Your task to perform on an android device: Show the shopping cart on bestbuy.com. Add bose soundsport free to the cart on bestbuy.com Image 0: 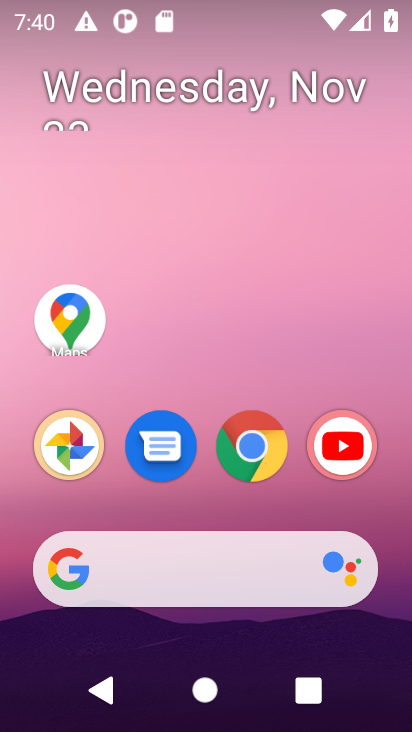
Step 0: click (241, 573)
Your task to perform on an android device: Show the shopping cart on bestbuy.com. Add bose soundsport free to the cart on bestbuy.com Image 1: 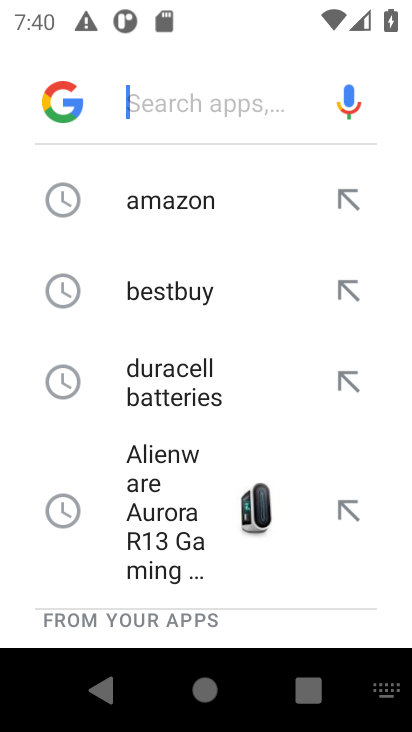
Step 1: click (221, 309)
Your task to perform on an android device: Show the shopping cart on bestbuy.com. Add bose soundsport free to the cart on bestbuy.com Image 2: 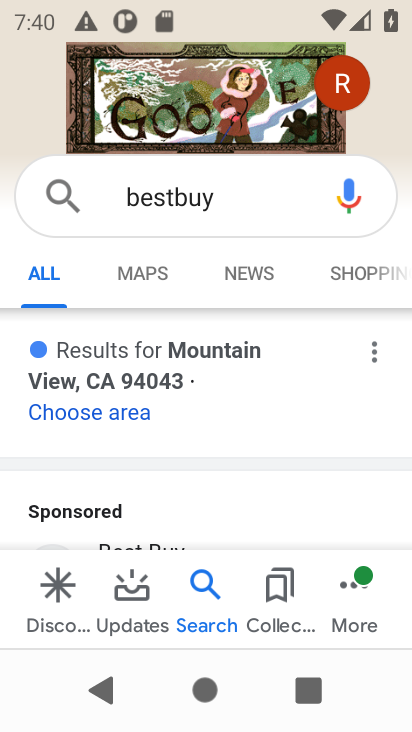
Step 2: drag from (254, 480) to (257, 275)
Your task to perform on an android device: Show the shopping cart on bestbuy.com. Add bose soundsport free to the cart on bestbuy.com Image 3: 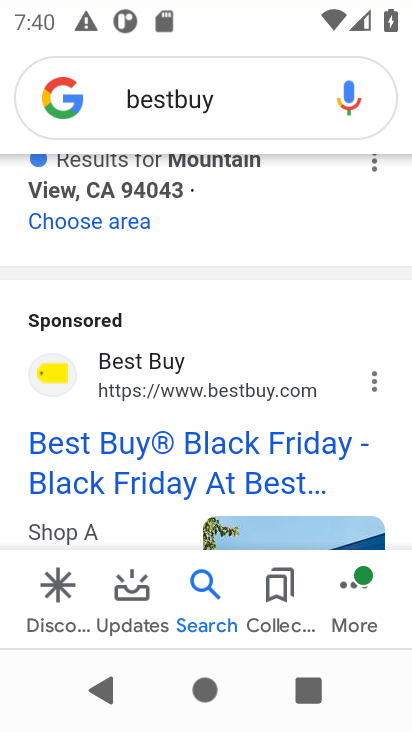
Step 3: click (141, 446)
Your task to perform on an android device: Show the shopping cart on bestbuy.com. Add bose soundsport free to the cart on bestbuy.com Image 4: 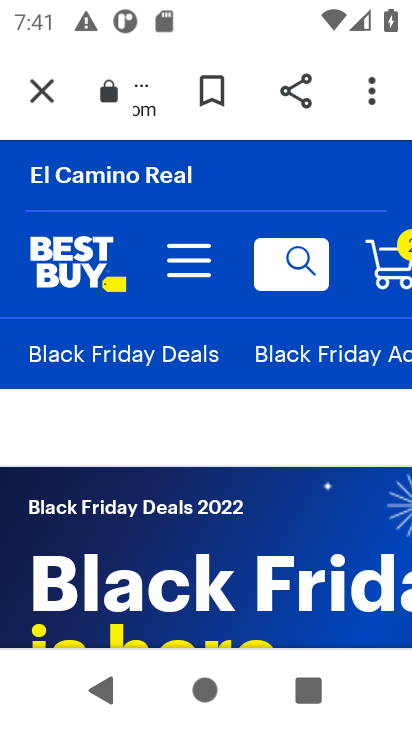
Step 4: click (276, 279)
Your task to perform on an android device: Show the shopping cart on bestbuy.com. Add bose soundsport free to the cart on bestbuy.com Image 5: 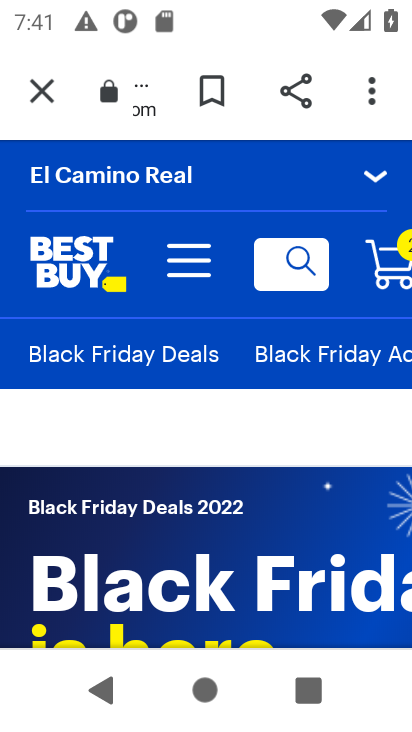
Step 5: click (278, 283)
Your task to perform on an android device: Show the shopping cart on bestbuy.com. Add bose soundsport free to the cart on bestbuy.com Image 6: 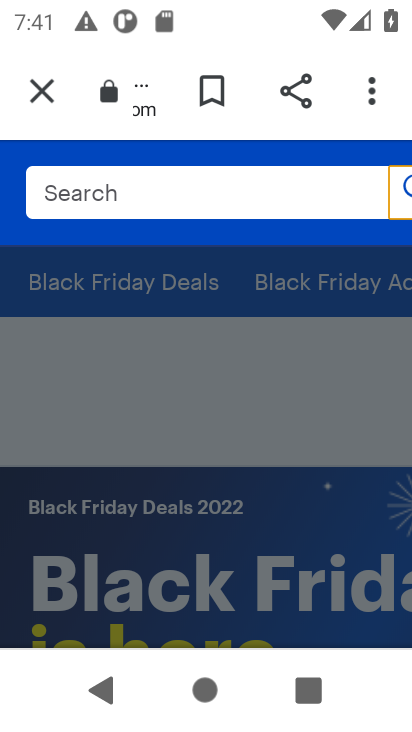
Step 6: type "bose soundsports"
Your task to perform on an android device: Show the shopping cart on bestbuy.com. Add bose soundsport free to the cart on bestbuy.com Image 7: 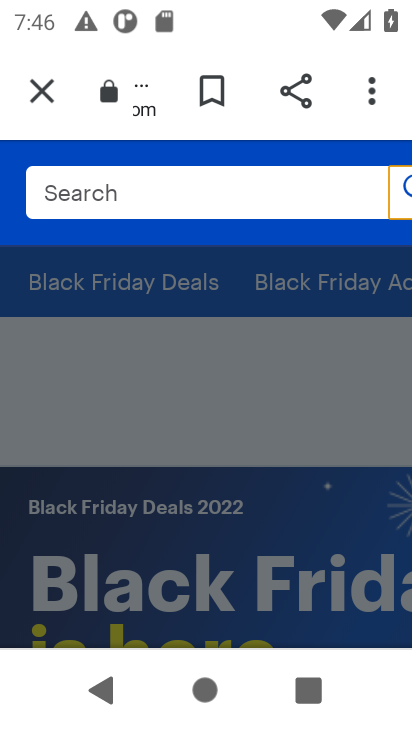
Step 7: click (300, 212)
Your task to perform on an android device: Show the shopping cart on bestbuy.com. Add bose soundsport free to the cart on bestbuy.com Image 8: 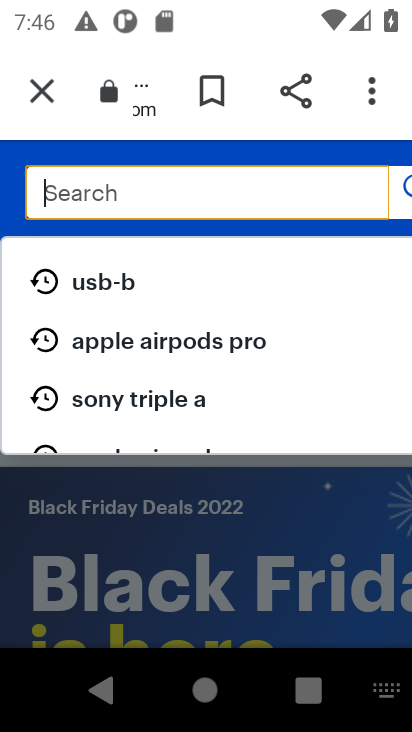
Step 8: type "bose soundsport"
Your task to perform on an android device: Show the shopping cart on bestbuy.com. Add bose soundsport free to the cart on bestbuy.com Image 9: 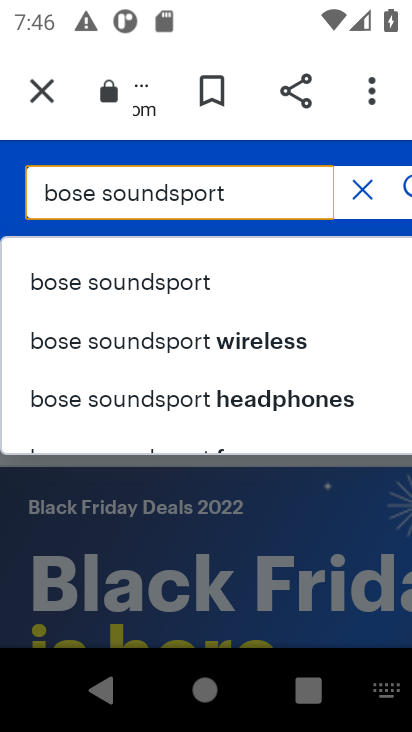
Step 9: click (229, 278)
Your task to perform on an android device: Show the shopping cart on bestbuy.com. Add bose soundsport free to the cart on bestbuy.com Image 10: 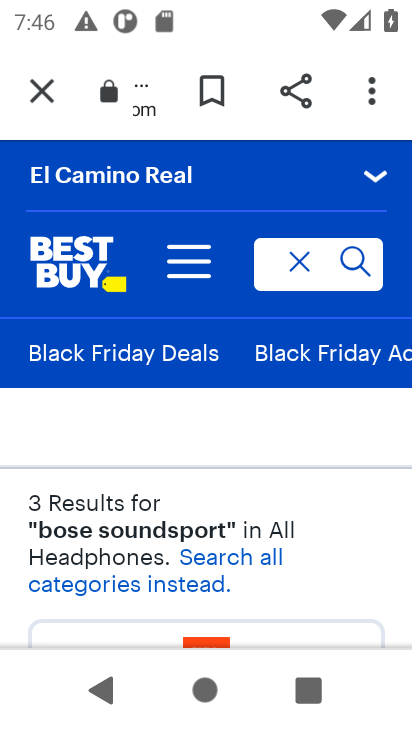
Step 10: task complete